Your task to perform on an android device: Go to internet settings Image 0: 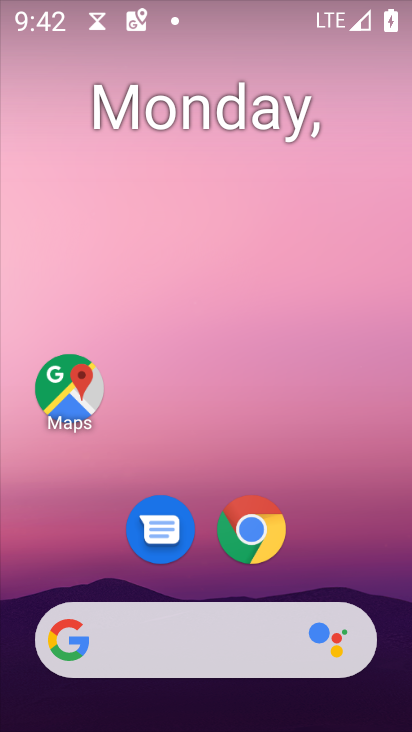
Step 0: drag from (322, 718) to (45, 81)
Your task to perform on an android device: Go to internet settings Image 1: 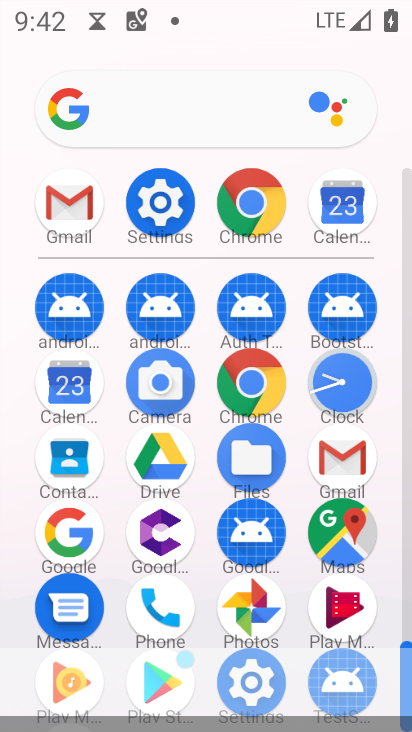
Step 1: click (160, 192)
Your task to perform on an android device: Go to internet settings Image 2: 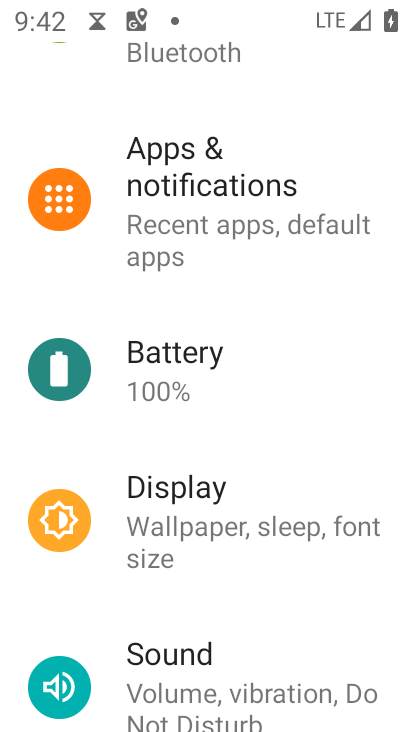
Step 2: drag from (240, 575) to (212, 252)
Your task to perform on an android device: Go to internet settings Image 3: 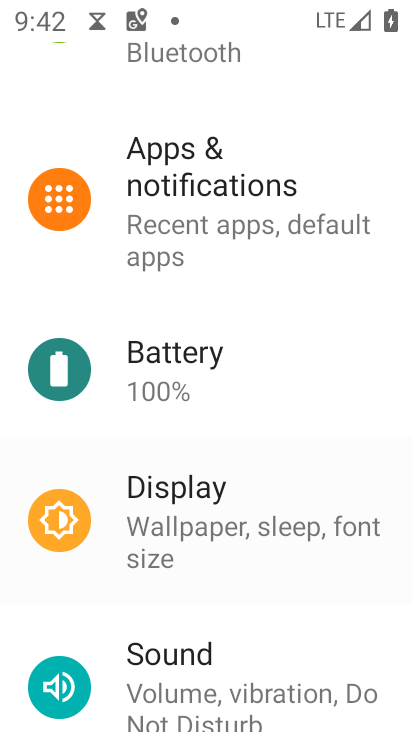
Step 3: drag from (239, 550) to (195, 237)
Your task to perform on an android device: Go to internet settings Image 4: 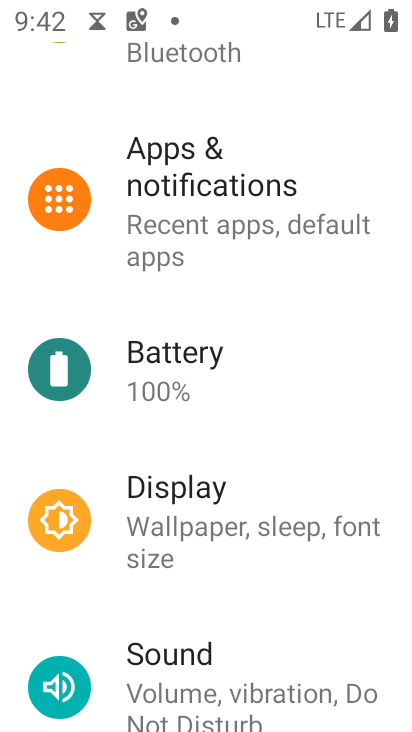
Step 4: drag from (238, 591) to (224, 208)
Your task to perform on an android device: Go to internet settings Image 5: 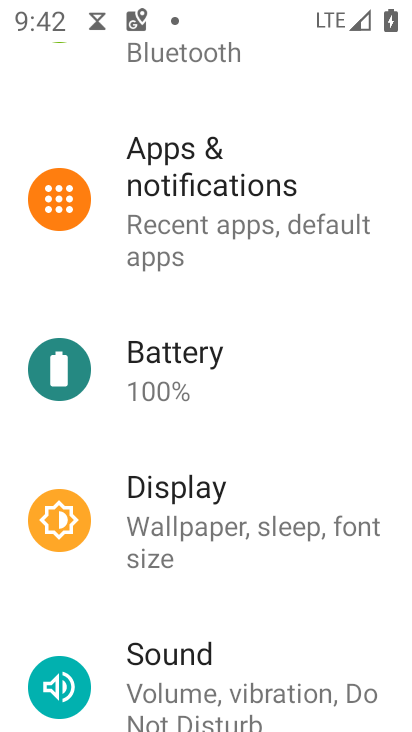
Step 5: drag from (205, 605) to (180, 177)
Your task to perform on an android device: Go to internet settings Image 6: 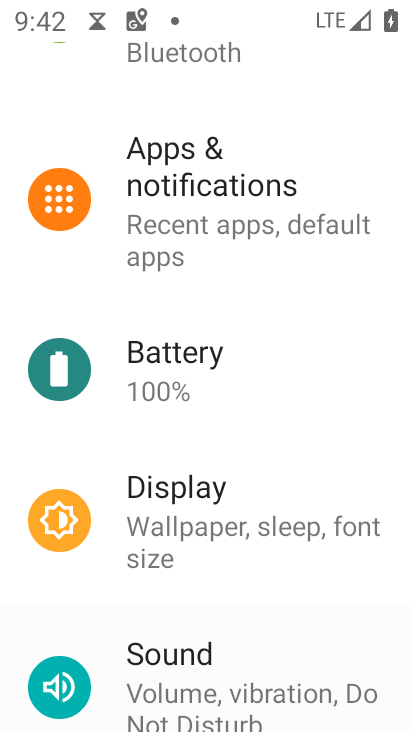
Step 6: drag from (197, 582) to (201, 224)
Your task to perform on an android device: Go to internet settings Image 7: 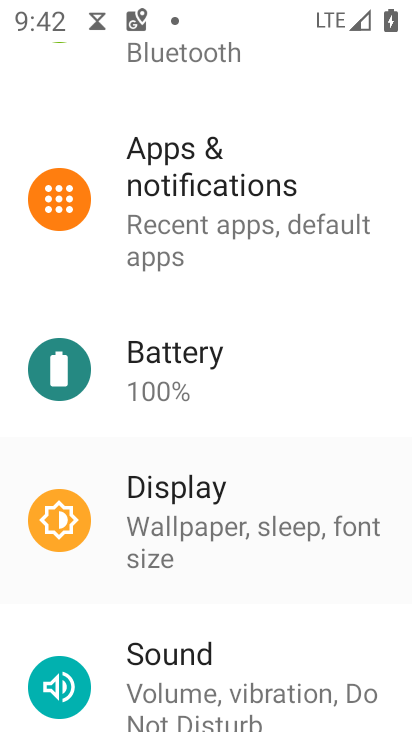
Step 7: drag from (225, 575) to (170, 304)
Your task to perform on an android device: Go to internet settings Image 8: 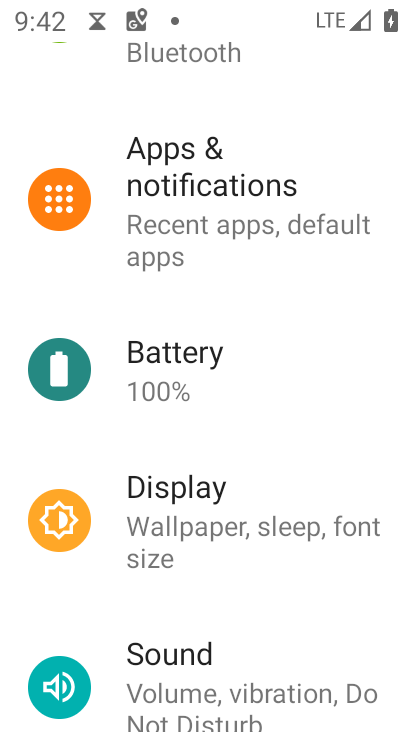
Step 8: drag from (175, 255) to (159, 541)
Your task to perform on an android device: Go to internet settings Image 9: 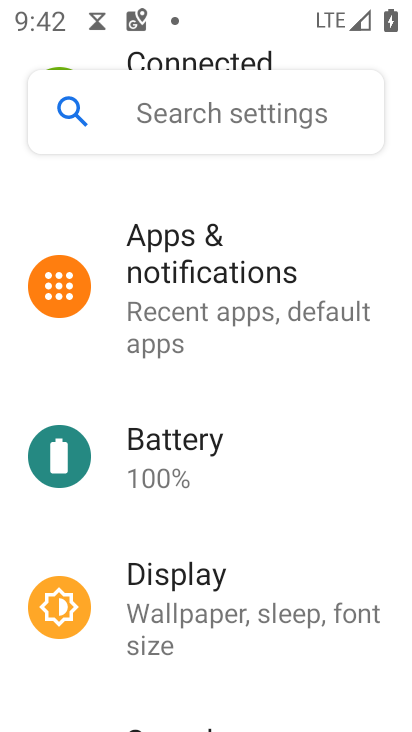
Step 9: drag from (147, 335) to (170, 488)
Your task to perform on an android device: Go to internet settings Image 10: 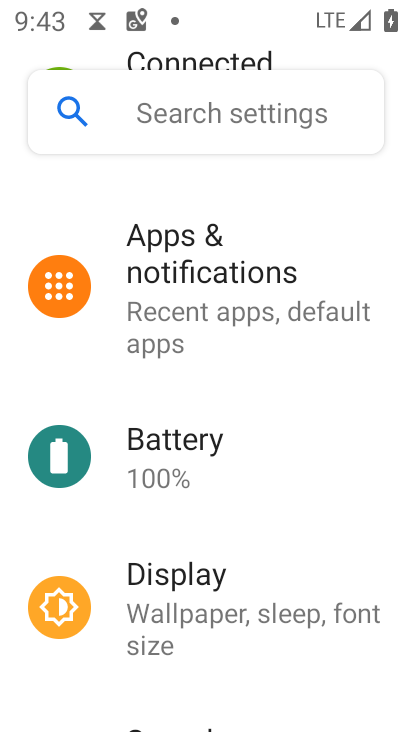
Step 10: click (219, 475)
Your task to perform on an android device: Go to internet settings Image 11: 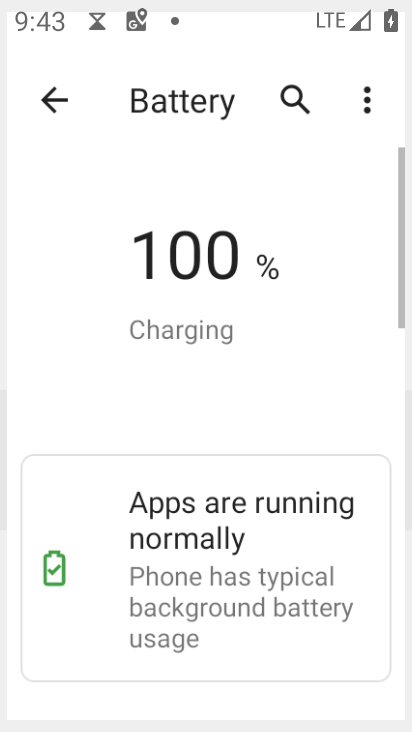
Step 11: drag from (202, 272) to (255, 615)
Your task to perform on an android device: Go to internet settings Image 12: 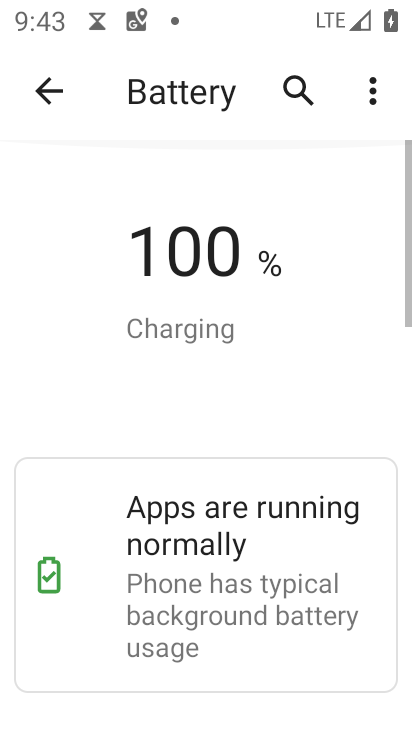
Step 12: drag from (202, 244) to (256, 556)
Your task to perform on an android device: Go to internet settings Image 13: 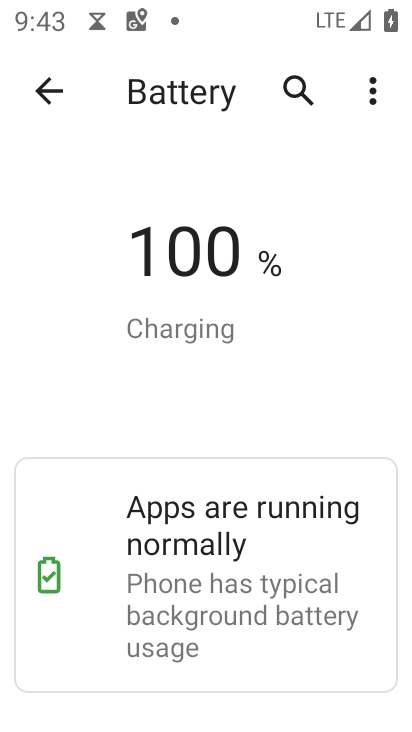
Step 13: click (45, 88)
Your task to perform on an android device: Go to internet settings Image 14: 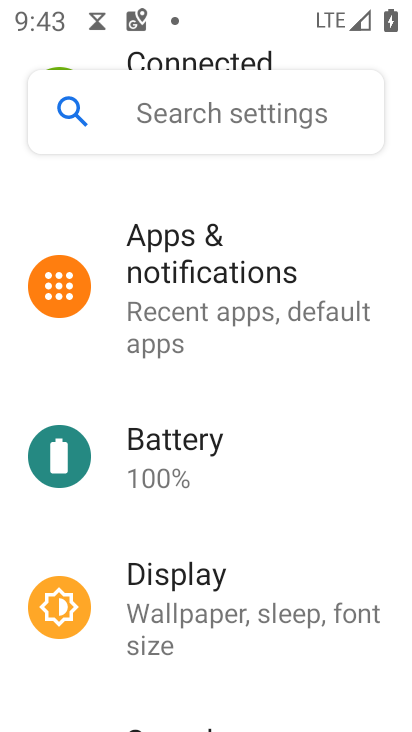
Step 14: drag from (186, 275) to (267, 580)
Your task to perform on an android device: Go to internet settings Image 15: 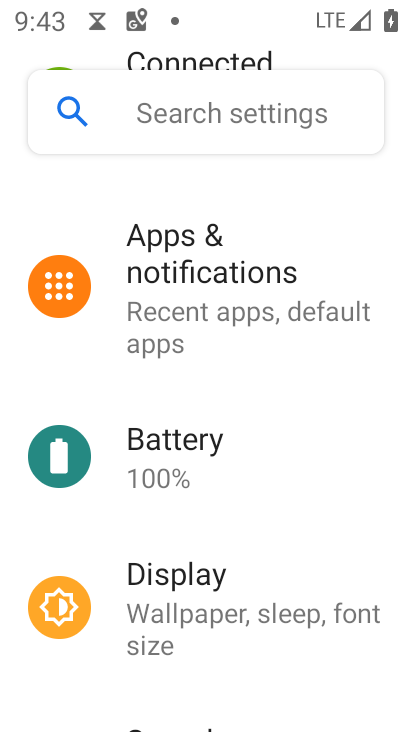
Step 15: drag from (184, 291) to (220, 596)
Your task to perform on an android device: Go to internet settings Image 16: 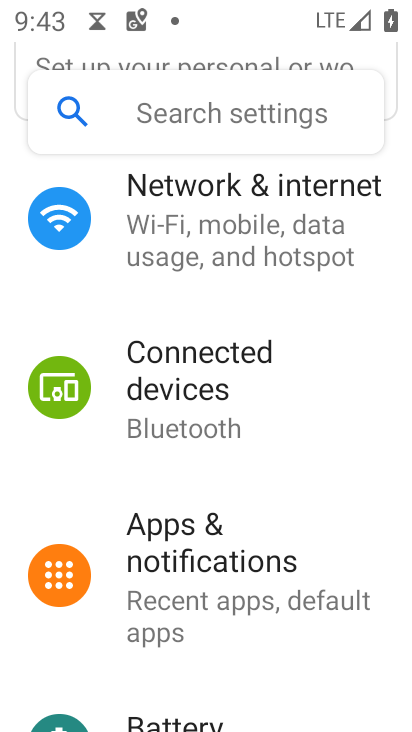
Step 16: click (177, 225)
Your task to perform on an android device: Go to internet settings Image 17: 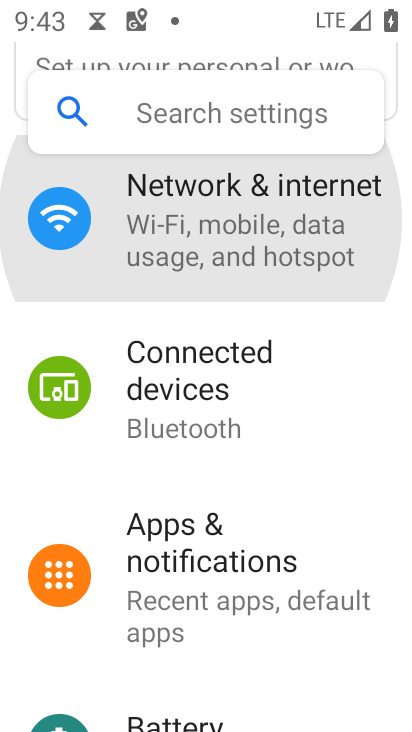
Step 17: click (180, 226)
Your task to perform on an android device: Go to internet settings Image 18: 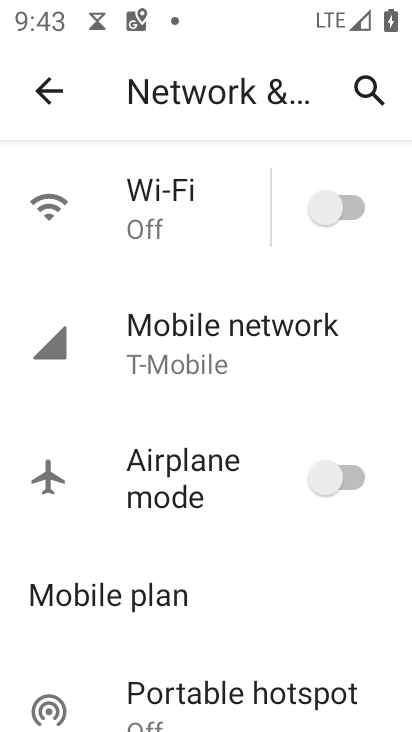
Step 18: click (206, 336)
Your task to perform on an android device: Go to internet settings Image 19: 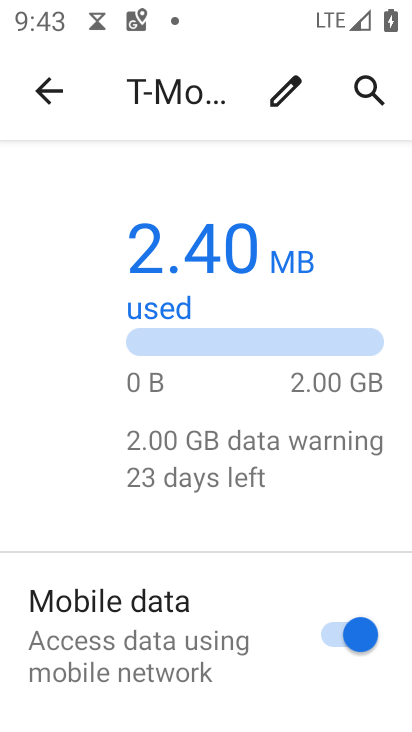
Step 19: task complete